Your task to perform on an android device: uninstall "Walmart Shopping & Grocery" Image 0: 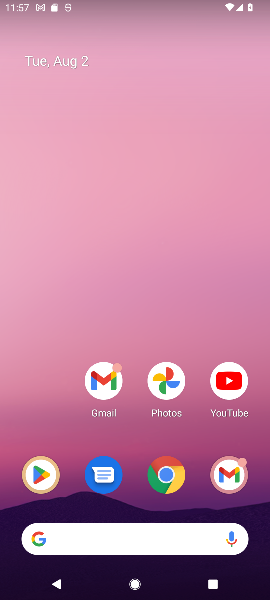
Step 0: click (39, 473)
Your task to perform on an android device: uninstall "Walmart Shopping & Grocery" Image 1: 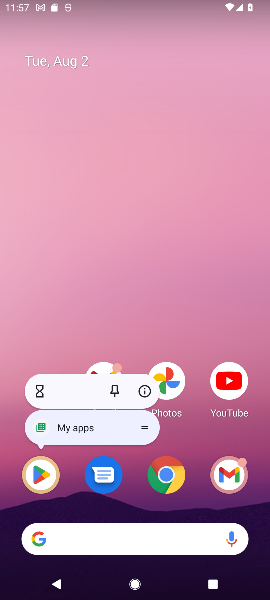
Step 1: click (39, 465)
Your task to perform on an android device: uninstall "Walmart Shopping & Grocery" Image 2: 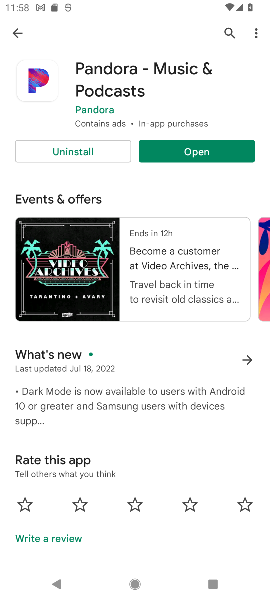
Step 2: click (227, 33)
Your task to perform on an android device: uninstall "Walmart Shopping & Grocery" Image 3: 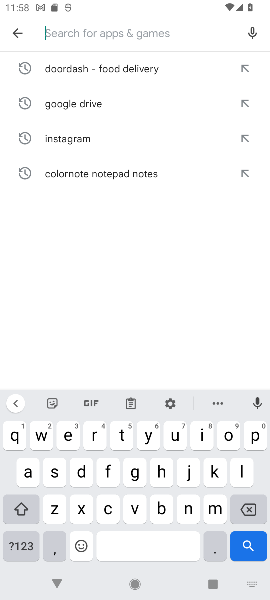
Step 3: type "Walmart Shopping & Grocery"
Your task to perform on an android device: uninstall "Walmart Shopping & Grocery" Image 4: 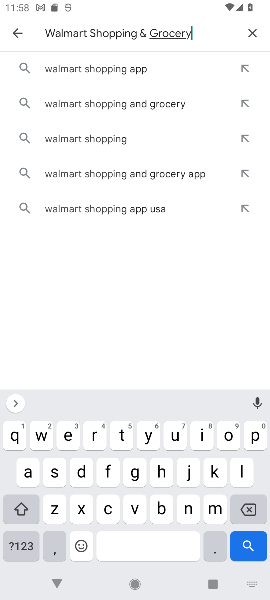
Step 4: type ""
Your task to perform on an android device: uninstall "Walmart Shopping & Grocery" Image 5: 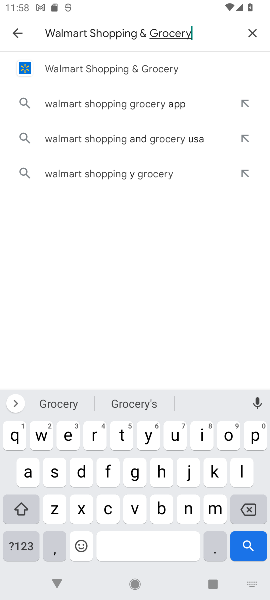
Step 5: click (168, 57)
Your task to perform on an android device: uninstall "Walmart Shopping & Grocery" Image 6: 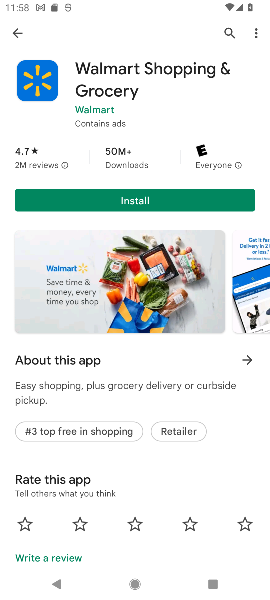
Step 6: task complete